Your task to perform on an android device: Search for Italian restaurants on Maps Image 0: 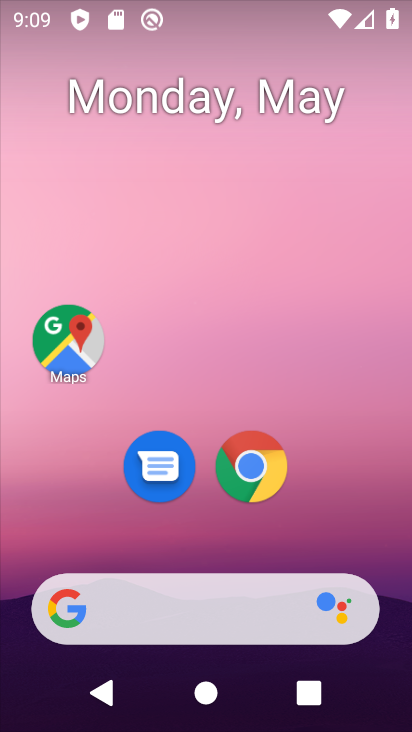
Step 0: click (53, 356)
Your task to perform on an android device: Search for Italian restaurants on Maps Image 1: 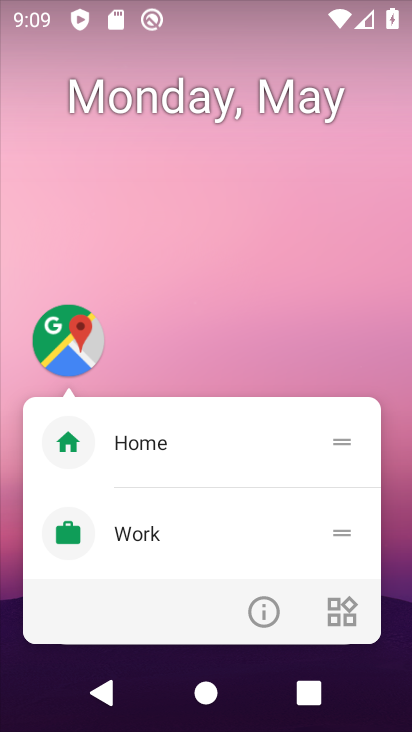
Step 1: click (70, 328)
Your task to perform on an android device: Search for Italian restaurants on Maps Image 2: 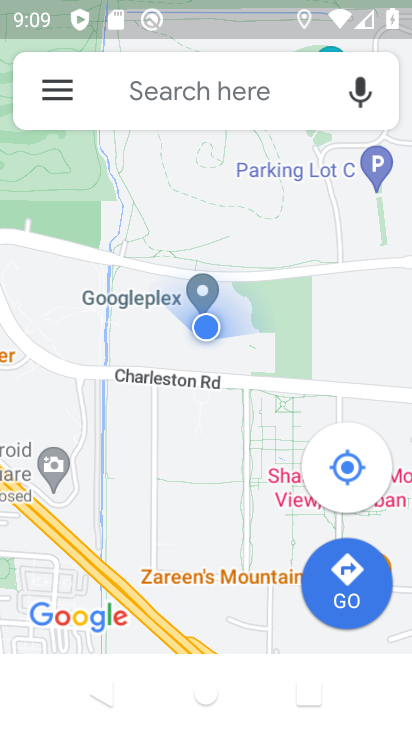
Step 2: click (259, 116)
Your task to perform on an android device: Search for Italian restaurants on Maps Image 3: 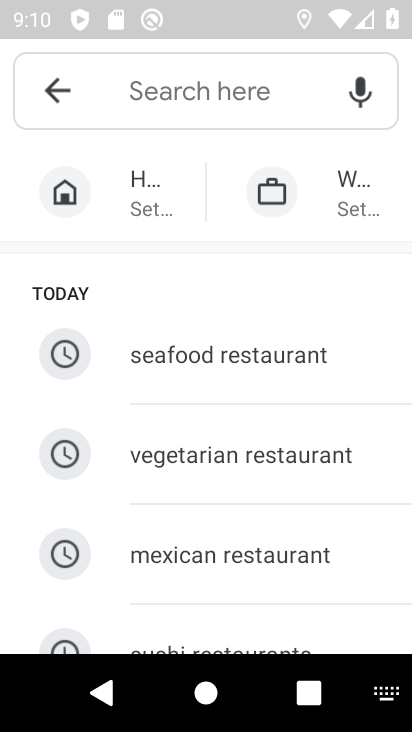
Step 3: type "Italian restaurants"
Your task to perform on an android device: Search for Italian restaurants on Maps Image 4: 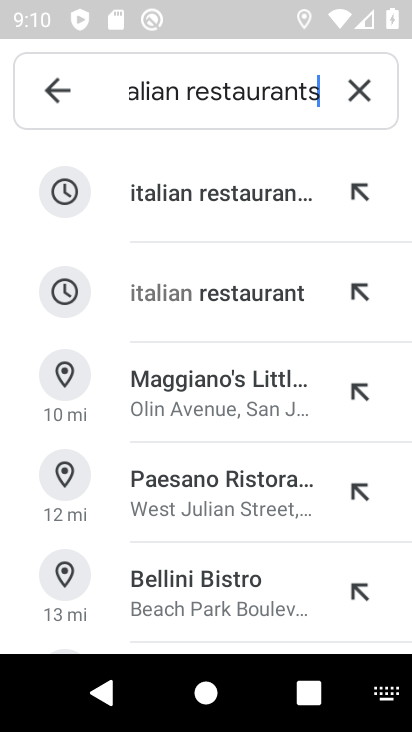
Step 4: click (198, 196)
Your task to perform on an android device: Search for Italian restaurants on Maps Image 5: 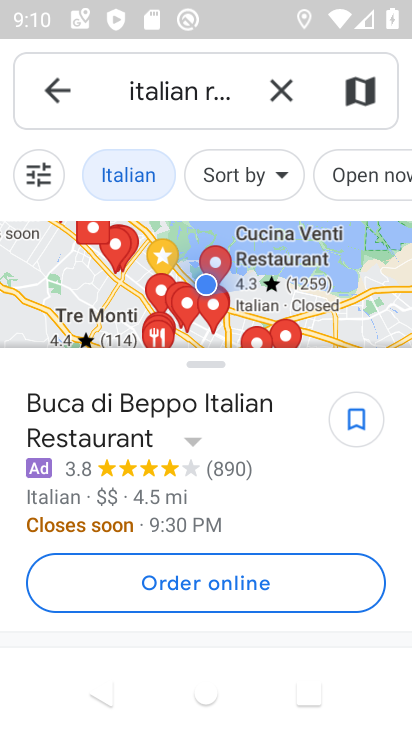
Step 5: task complete